Your task to perform on an android device: check the backup settings in the google photos Image 0: 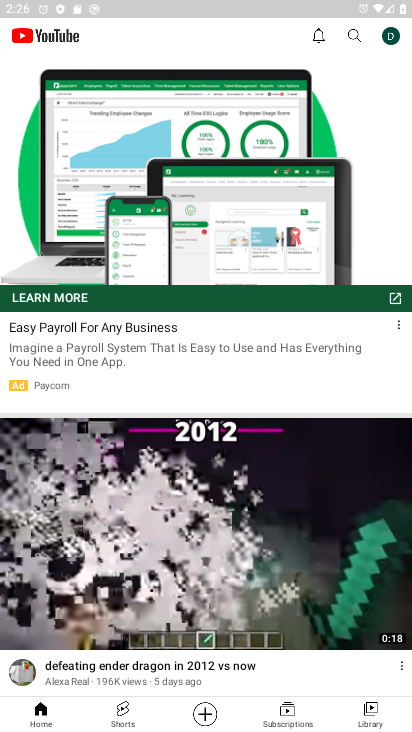
Step 0: press home button
Your task to perform on an android device: check the backup settings in the google photos Image 1: 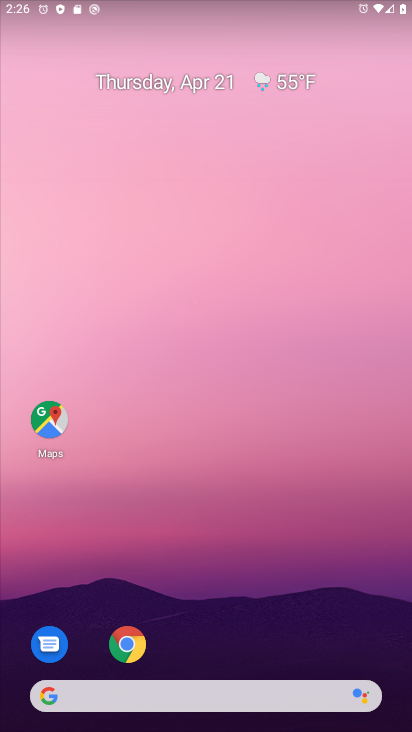
Step 1: drag from (271, 543) to (190, 63)
Your task to perform on an android device: check the backup settings in the google photos Image 2: 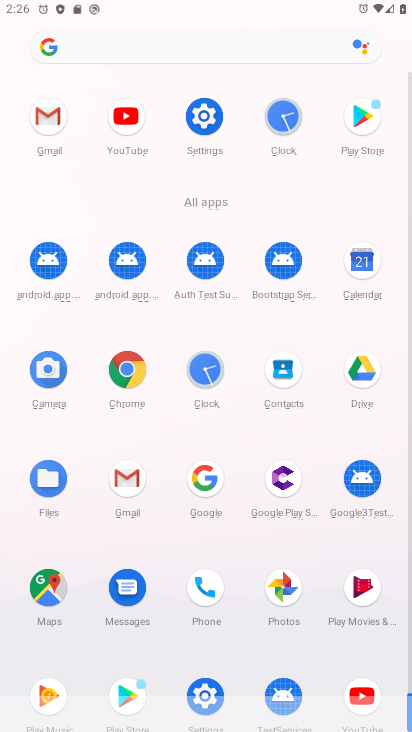
Step 2: click (279, 601)
Your task to perform on an android device: check the backup settings in the google photos Image 3: 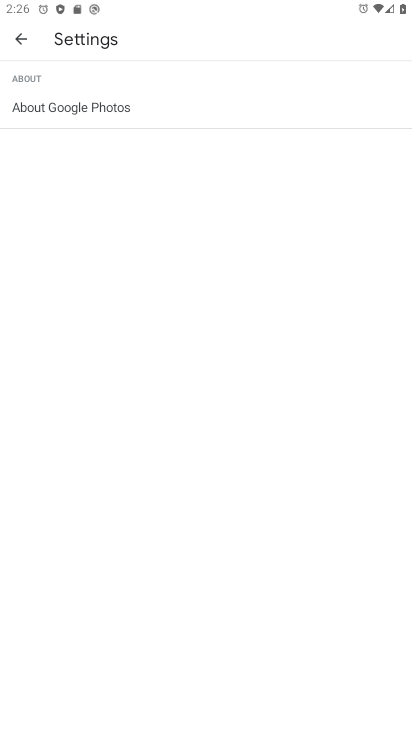
Step 3: click (25, 39)
Your task to perform on an android device: check the backup settings in the google photos Image 4: 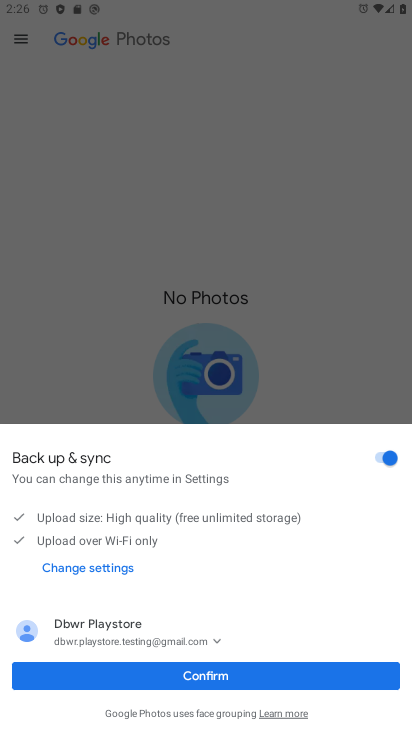
Step 4: click (25, 35)
Your task to perform on an android device: check the backup settings in the google photos Image 5: 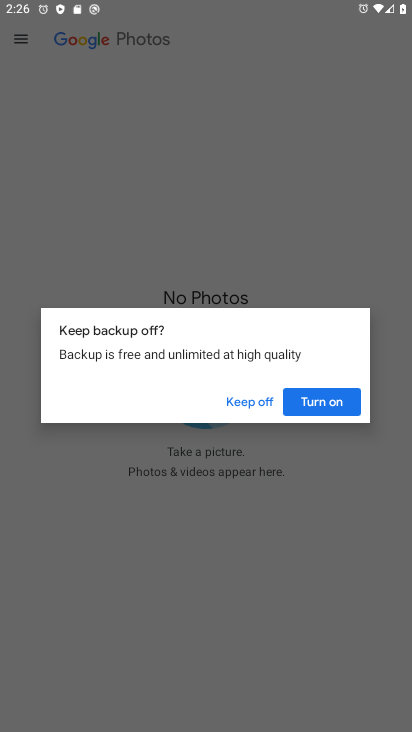
Step 5: click (244, 400)
Your task to perform on an android device: check the backup settings in the google photos Image 6: 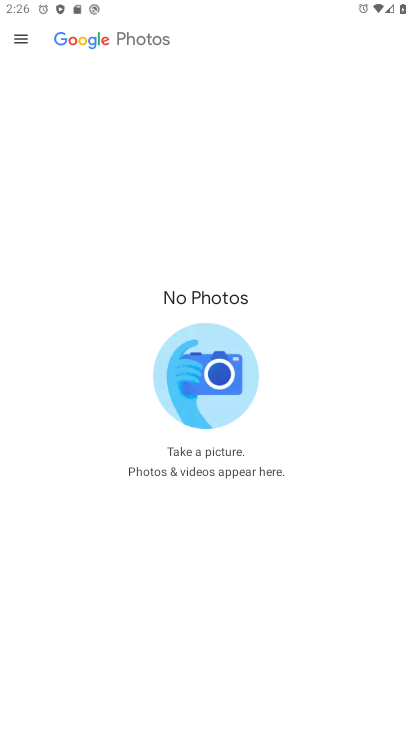
Step 6: click (22, 44)
Your task to perform on an android device: check the backup settings in the google photos Image 7: 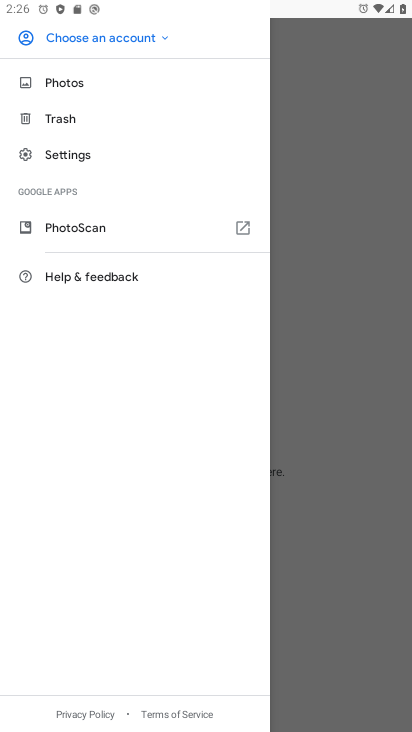
Step 7: click (75, 161)
Your task to perform on an android device: check the backup settings in the google photos Image 8: 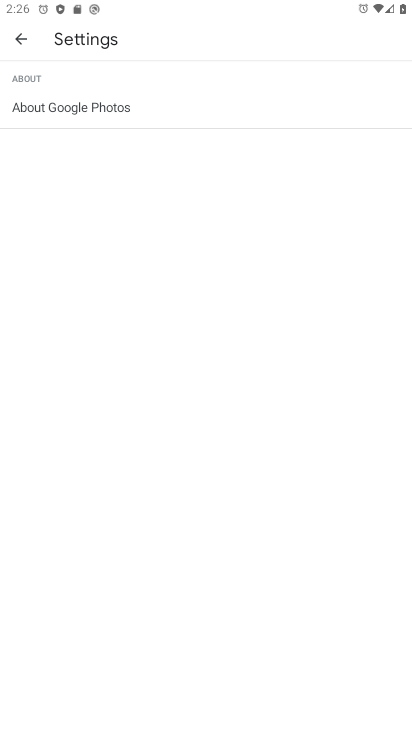
Step 8: click (104, 112)
Your task to perform on an android device: check the backup settings in the google photos Image 9: 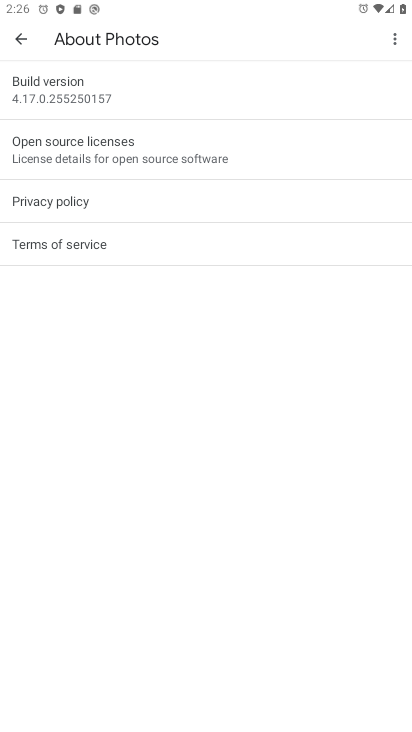
Step 9: click (20, 34)
Your task to perform on an android device: check the backup settings in the google photos Image 10: 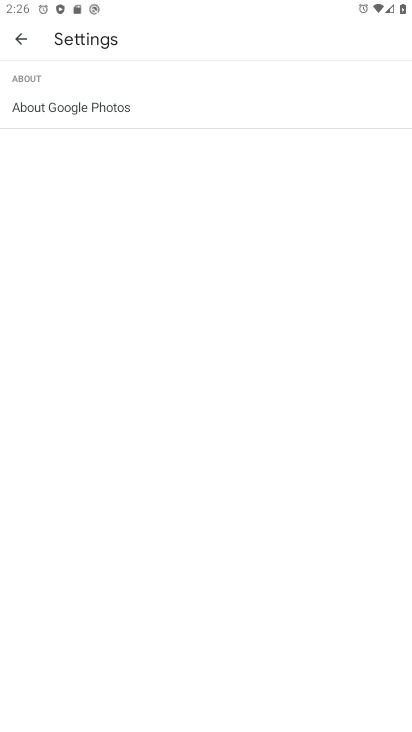
Step 10: click (31, 45)
Your task to perform on an android device: check the backup settings in the google photos Image 11: 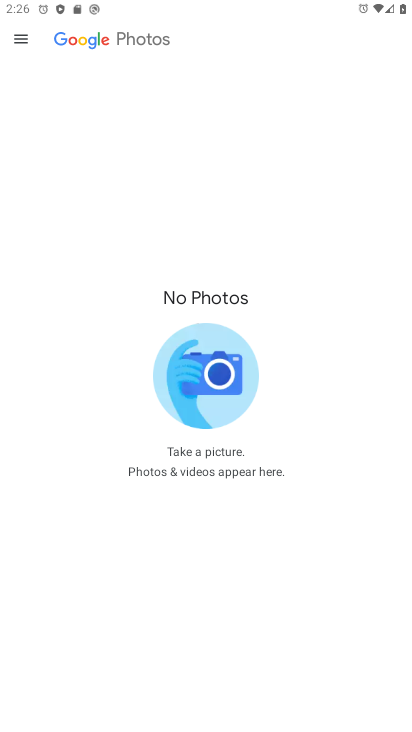
Step 11: click (34, 37)
Your task to perform on an android device: check the backup settings in the google photos Image 12: 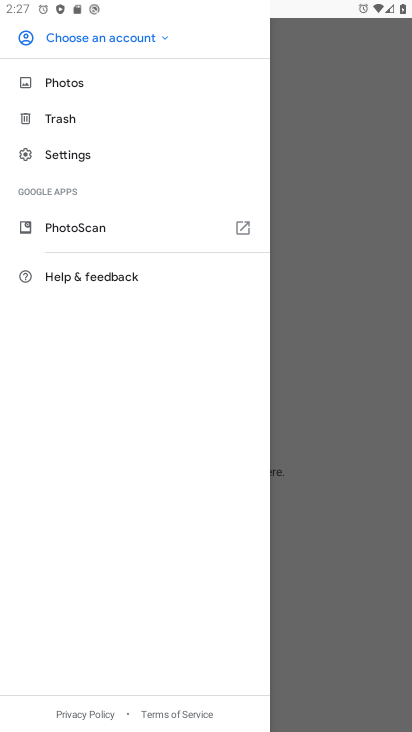
Step 12: click (45, 41)
Your task to perform on an android device: check the backup settings in the google photos Image 13: 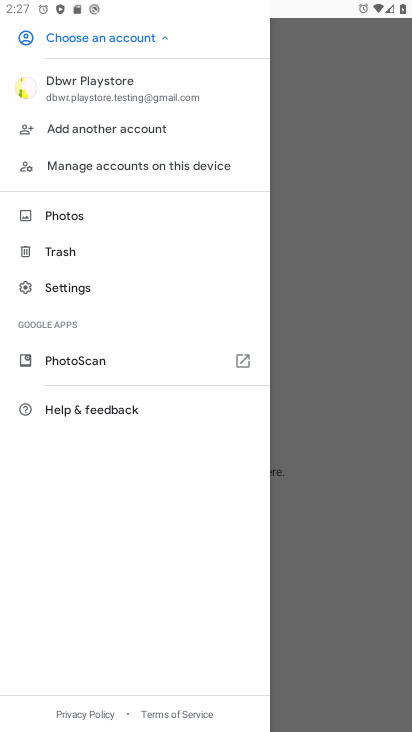
Step 13: click (92, 85)
Your task to perform on an android device: check the backup settings in the google photos Image 14: 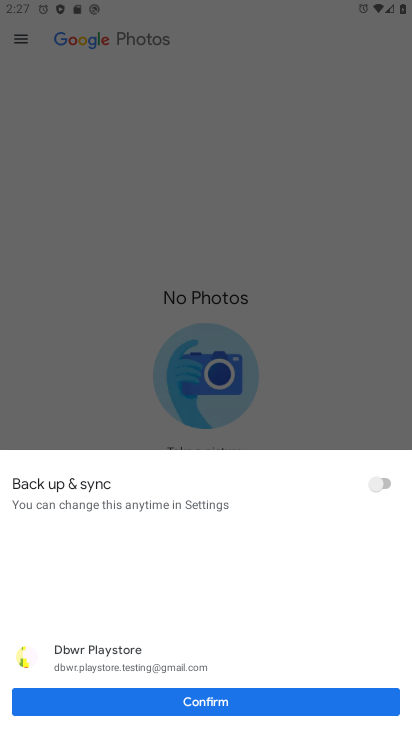
Step 14: click (217, 680)
Your task to perform on an android device: check the backup settings in the google photos Image 15: 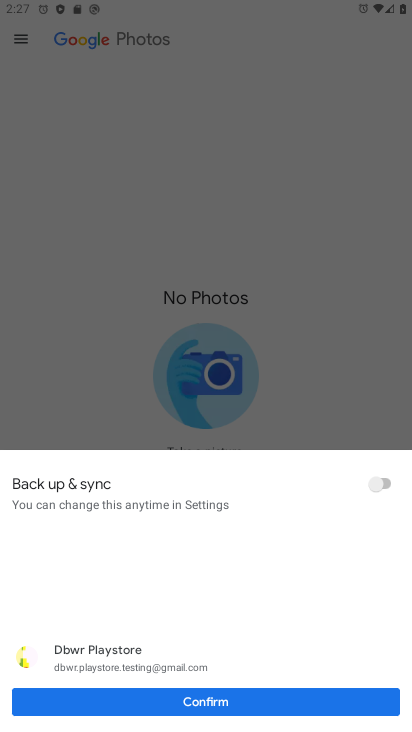
Step 15: click (219, 697)
Your task to perform on an android device: check the backup settings in the google photos Image 16: 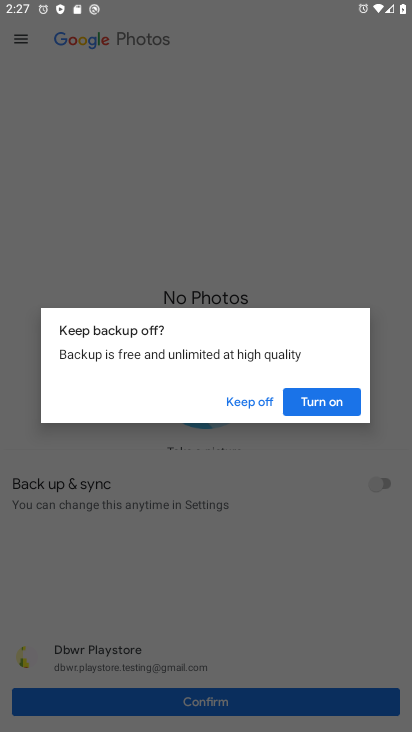
Step 16: click (343, 383)
Your task to perform on an android device: check the backup settings in the google photos Image 17: 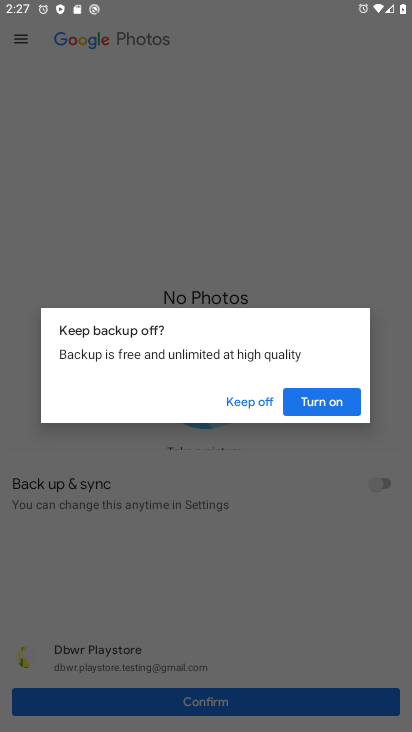
Step 17: click (338, 399)
Your task to perform on an android device: check the backup settings in the google photos Image 18: 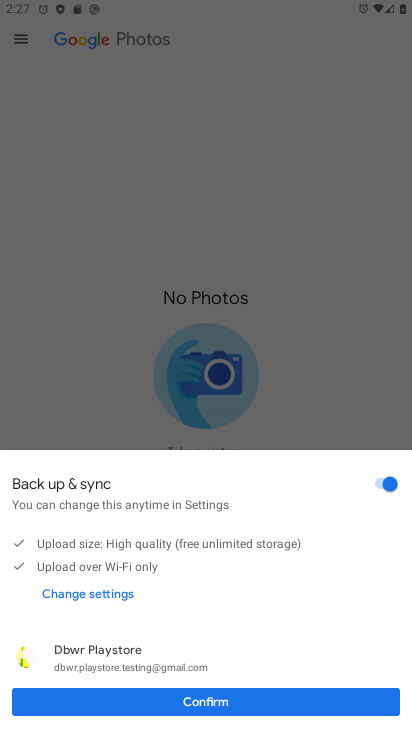
Step 18: click (167, 684)
Your task to perform on an android device: check the backup settings in the google photos Image 19: 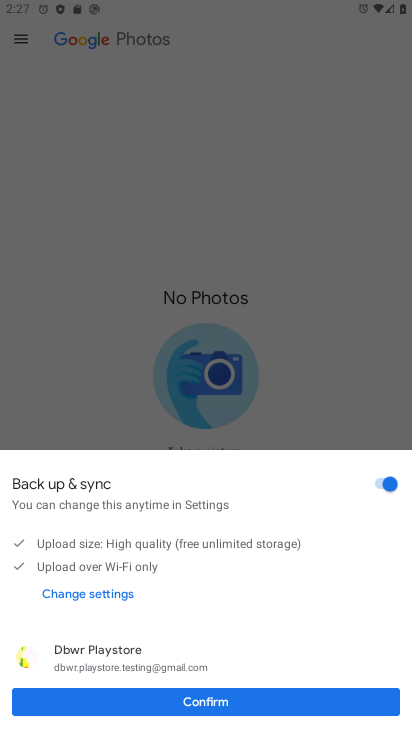
Step 19: click (168, 712)
Your task to perform on an android device: check the backup settings in the google photos Image 20: 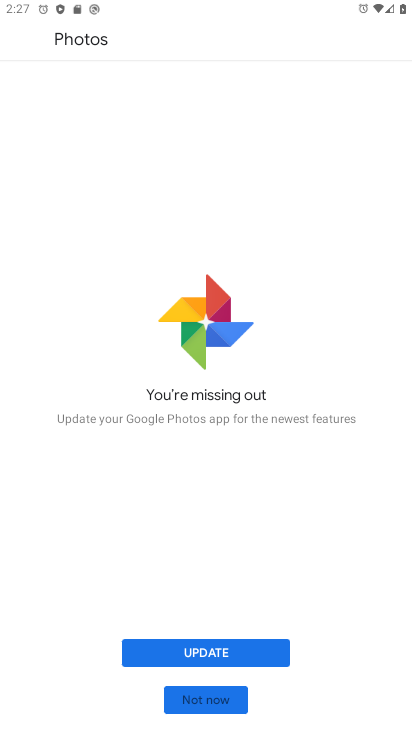
Step 20: click (205, 702)
Your task to perform on an android device: check the backup settings in the google photos Image 21: 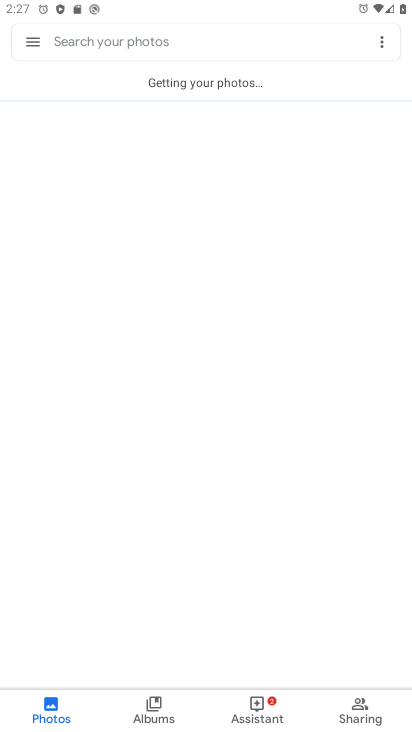
Step 21: click (26, 29)
Your task to perform on an android device: check the backup settings in the google photos Image 22: 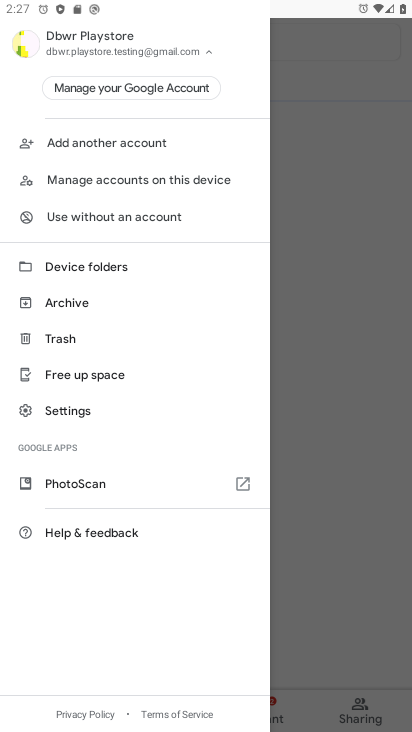
Step 22: click (83, 405)
Your task to perform on an android device: check the backup settings in the google photos Image 23: 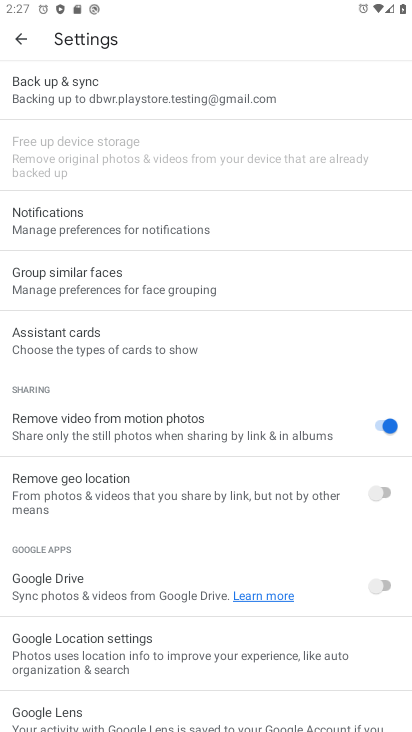
Step 23: click (97, 87)
Your task to perform on an android device: check the backup settings in the google photos Image 24: 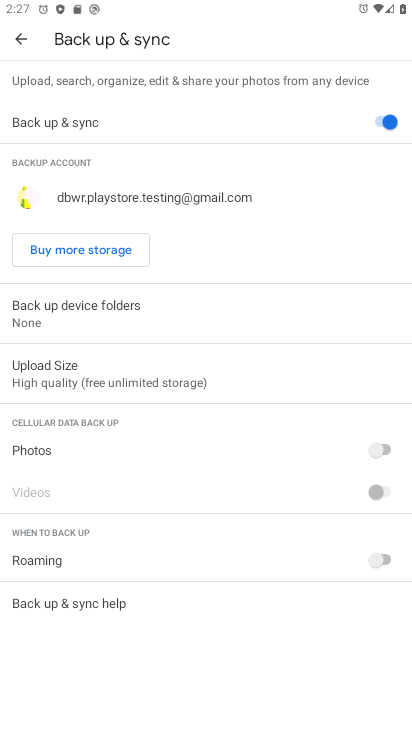
Step 24: task complete